Your task to perform on an android device: Open internet settings Image 0: 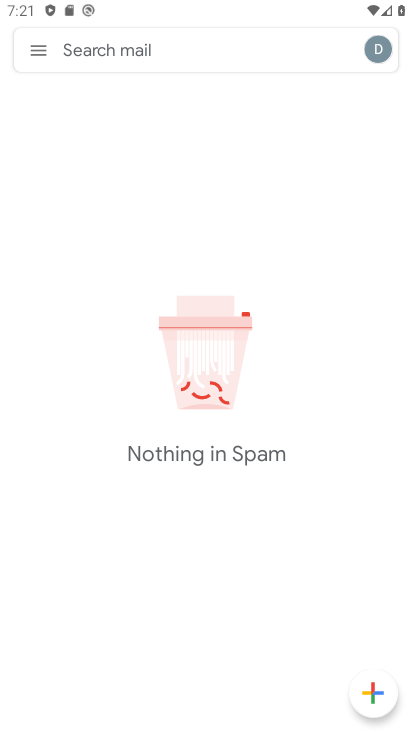
Step 0: press home button
Your task to perform on an android device: Open internet settings Image 1: 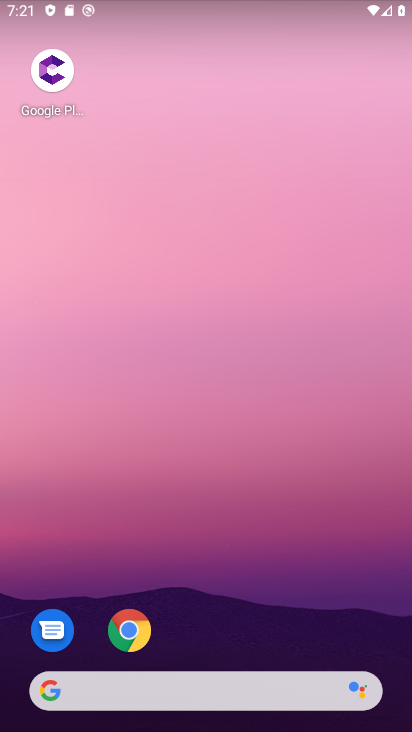
Step 1: drag from (263, 625) to (243, 211)
Your task to perform on an android device: Open internet settings Image 2: 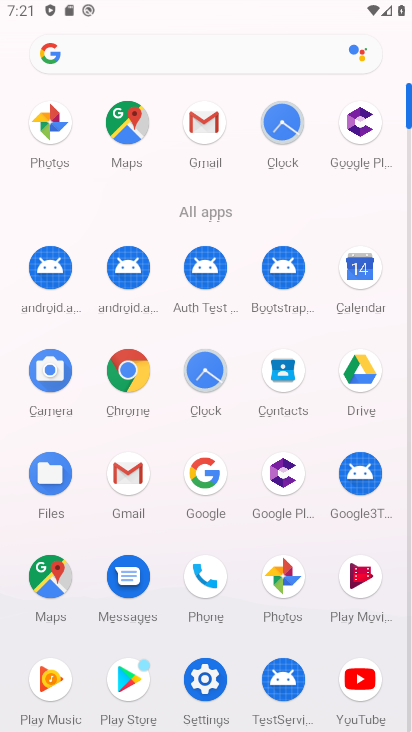
Step 2: click (197, 687)
Your task to perform on an android device: Open internet settings Image 3: 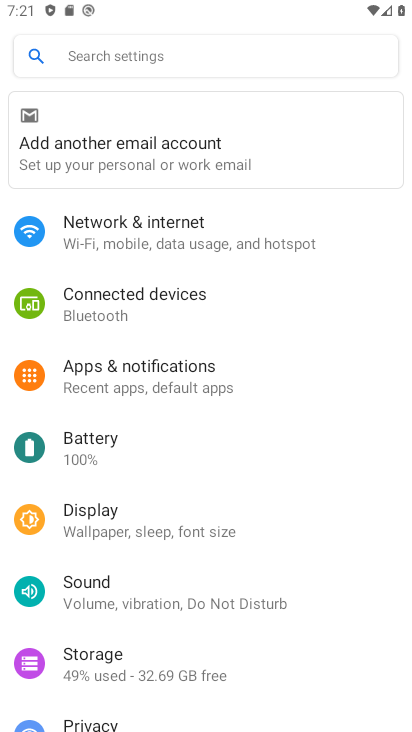
Step 3: click (167, 230)
Your task to perform on an android device: Open internet settings Image 4: 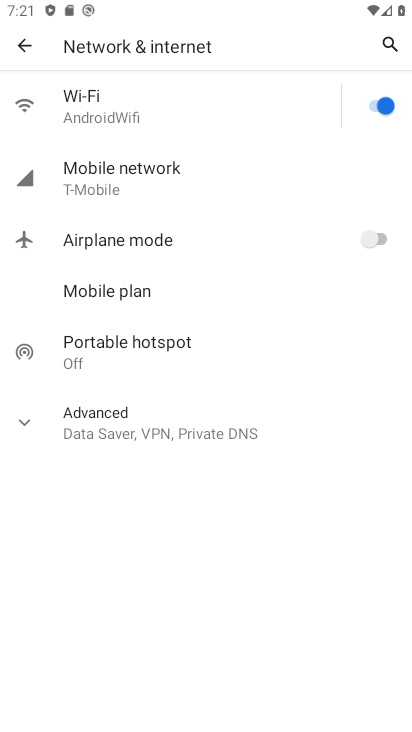
Step 4: task complete